Your task to perform on an android device: Open the map Image 0: 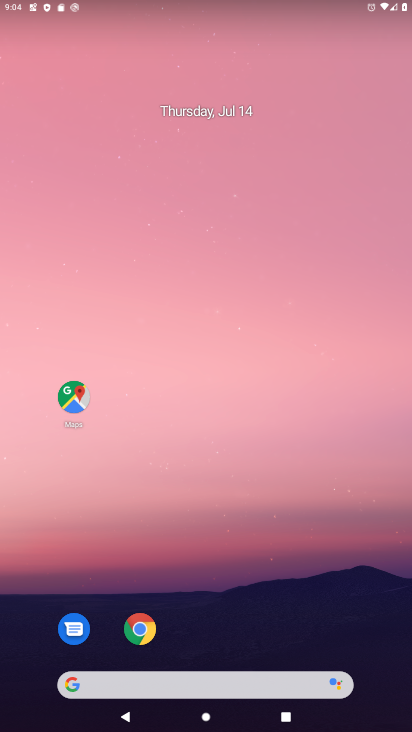
Step 0: click (80, 398)
Your task to perform on an android device: Open the map Image 1: 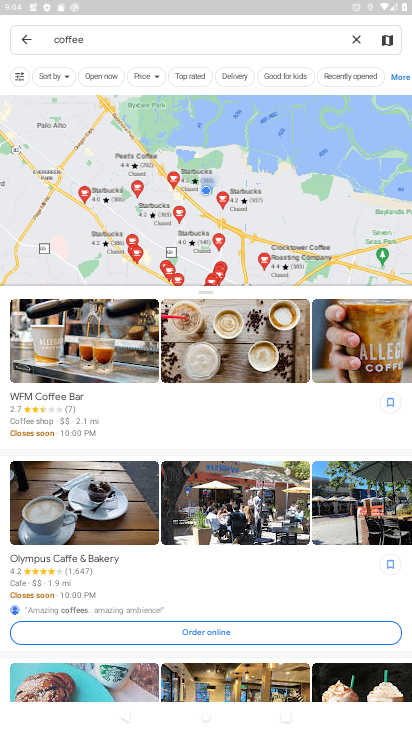
Step 1: task complete